Your task to perform on an android device: turn smart compose on in the gmail app Image 0: 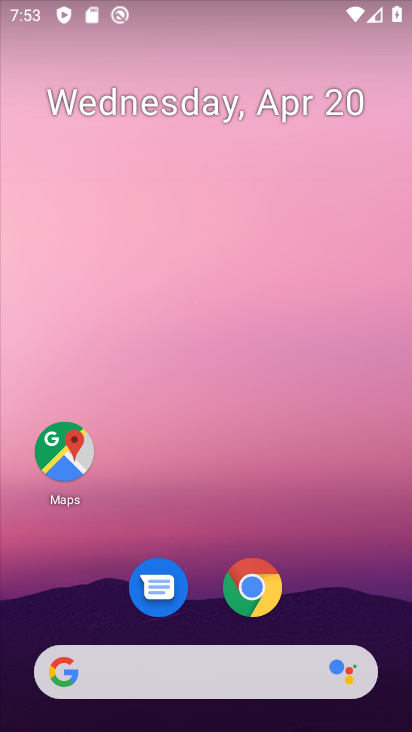
Step 0: drag from (336, 580) to (350, 193)
Your task to perform on an android device: turn smart compose on in the gmail app Image 1: 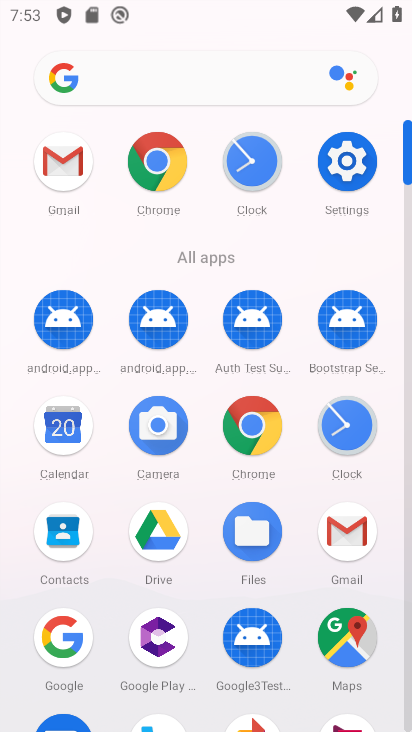
Step 1: click (356, 530)
Your task to perform on an android device: turn smart compose on in the gmail app Image 2: 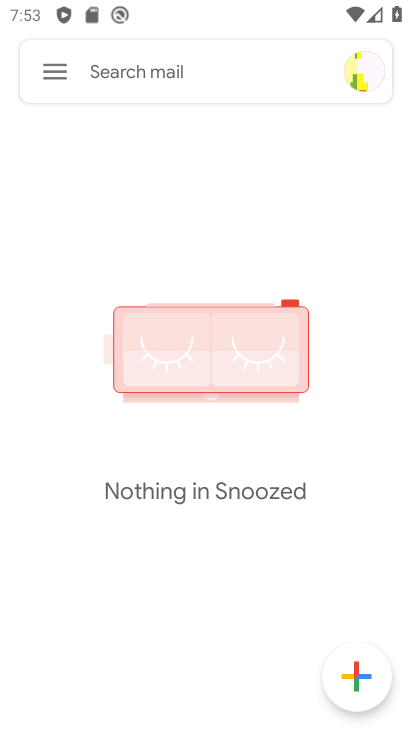
Step 2: click (48, 76)
Your task to perform on an android device: turn smart compose on in the gmail app Image 3: 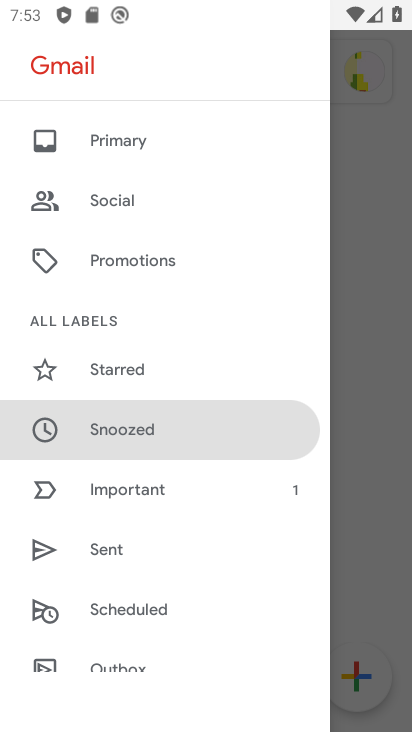
Step 3: drag from (240, 572) to (241, 369)
Your task to perform on an android device: turn smart compose on in the gmail app Image 4: 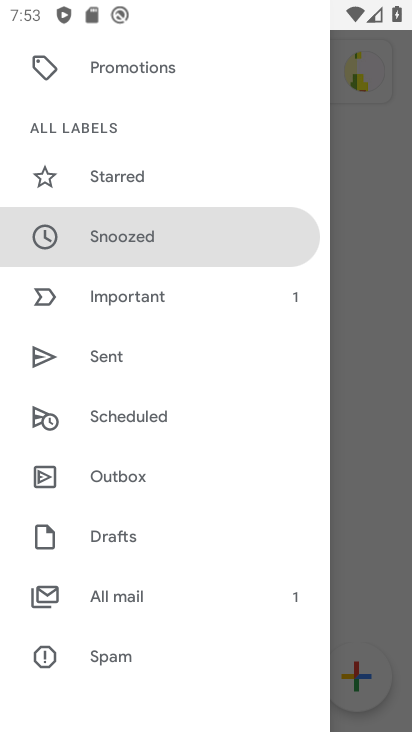
Step 4: drag from (235, 570) to (238, 346)
Your task to perform on an android device: turn smart compose on in the gmail app Image 5: 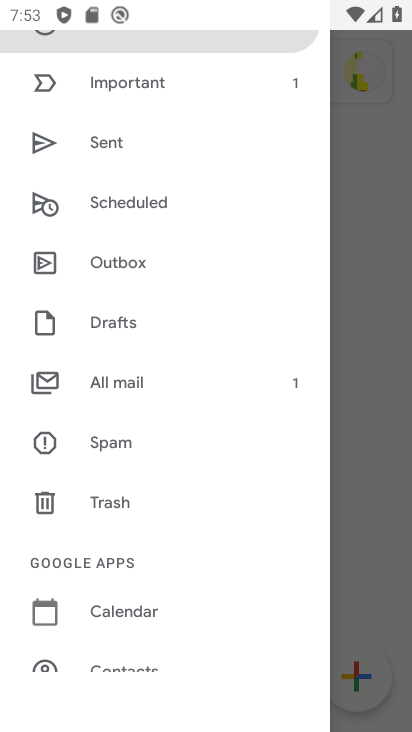
Step 5: drag from (238, 589) to (244, 385)
Your task to perform on an android device: turn smart compose on in the gmail app Image 6: 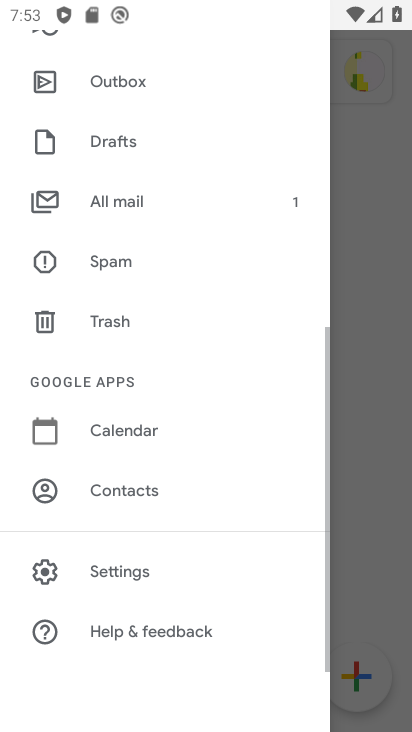
Step 6: click (249, 433)
Your task to perform on an android device: turn smart compose on in the gmail app Image 7: 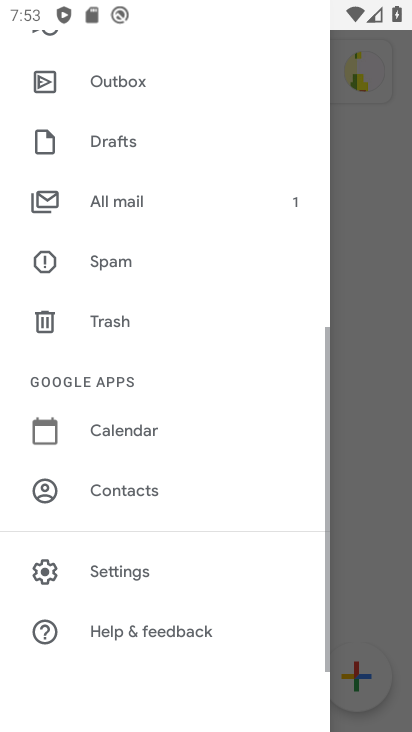
Step 7: click (156, 572)
Your task to perform on an android device: turn smart compose on in the gmail app Image 8: 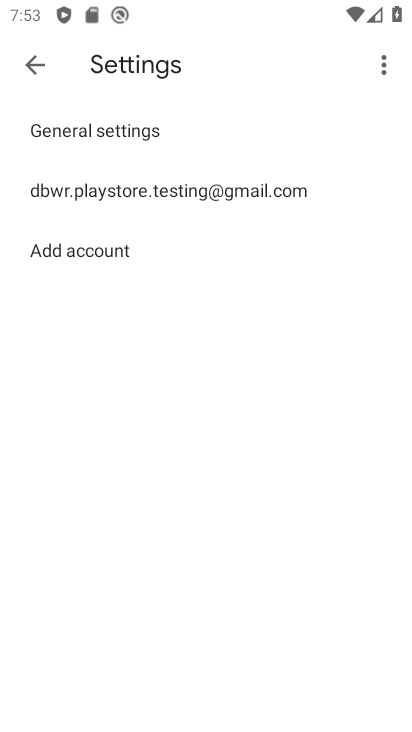
Step 8: click (226, 191)
Your task to perform on an android device: turn smart compose on in the gmail app Image 9: 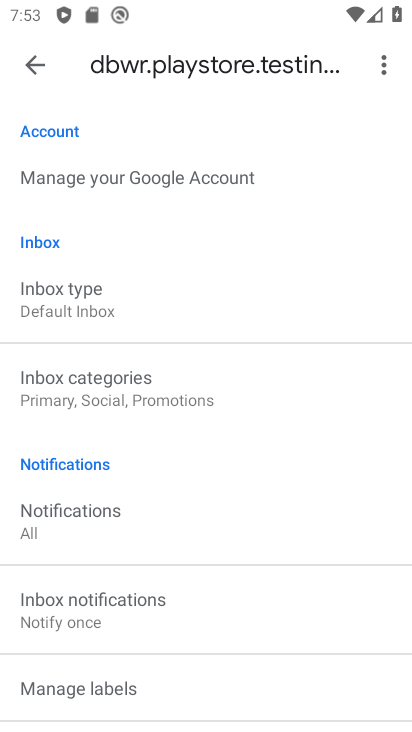
Step 9: task complete